Your task to perform on an android device: Check the weather Image 0: 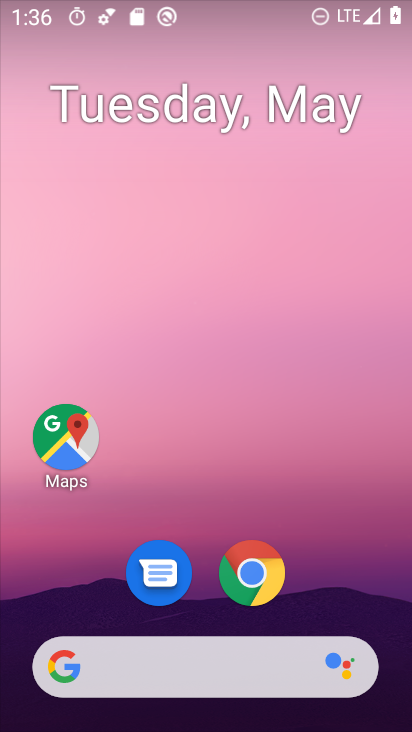
Step 0: drag from (373, 600) to (341, 353)
Your task to perform on an android device: Check the weather Image 1: 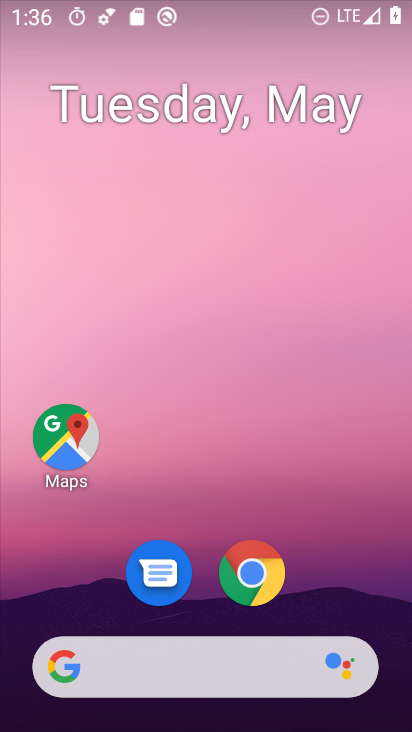
Step 1: click (64, 658)
Your task to perform on an android device: Check the weather Image 2: 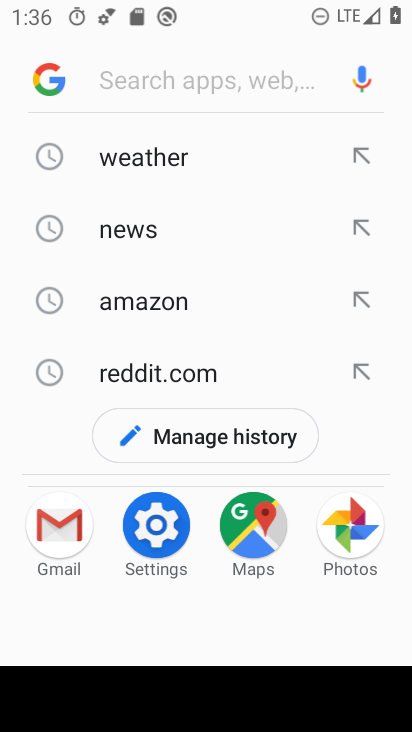
Step 2: click (45, 52)
Your task to perform on an android device: Check the weather Image 3: 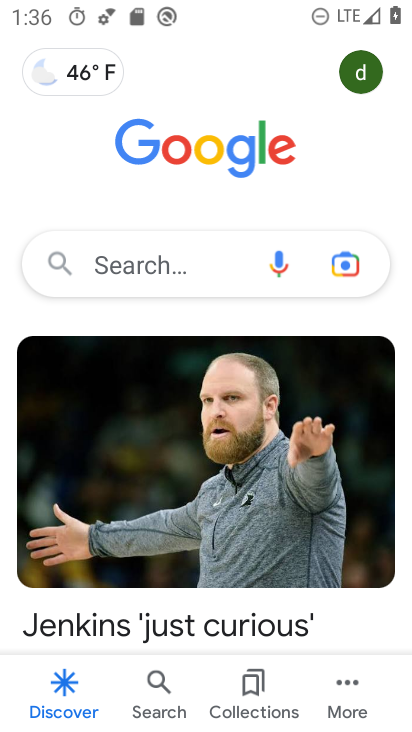
Step 3: drag from (255, 505) to (282, 220)
Your task to perform on an android device: Check the weather Image 4: 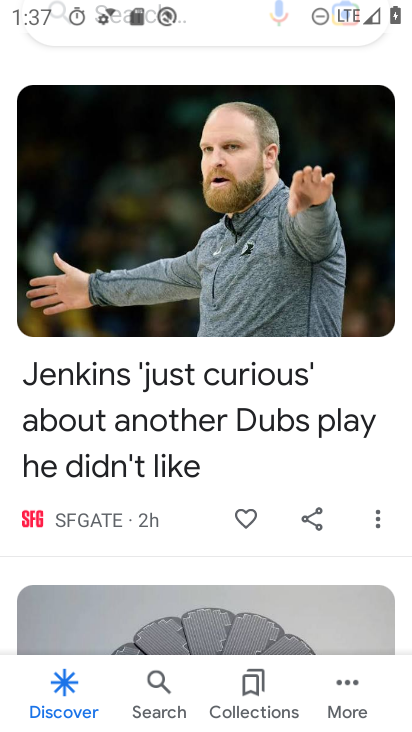
Step 4: drag from (328, 178) to (371, 494)
Your task to perform on an android device: Check the weather Image 5: 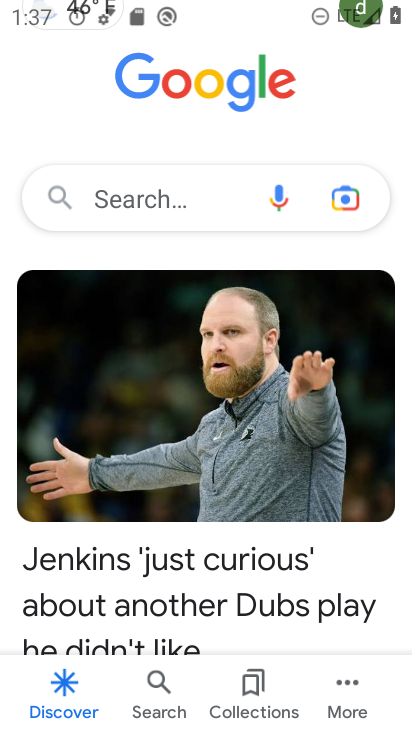
Step 5: drag from (174, 173) to (209, 474)
Your task to perform on an android device: Check the weather Image 6: 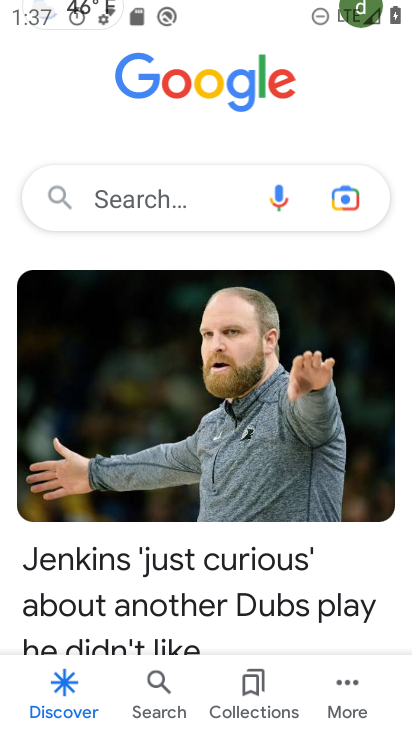
Step 6: drag from (376, 133) to (400, 500)
Your task to perform on an android device: Check the weather Image 7: 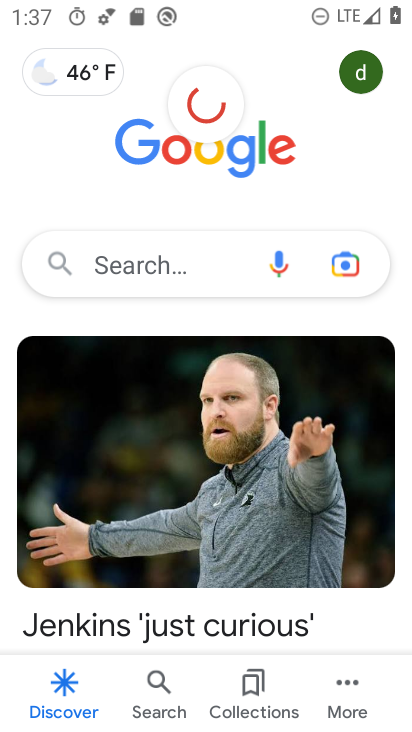
Step 7: click (70, 75)
Your task to perform on an android device: Check the weather Image 8: 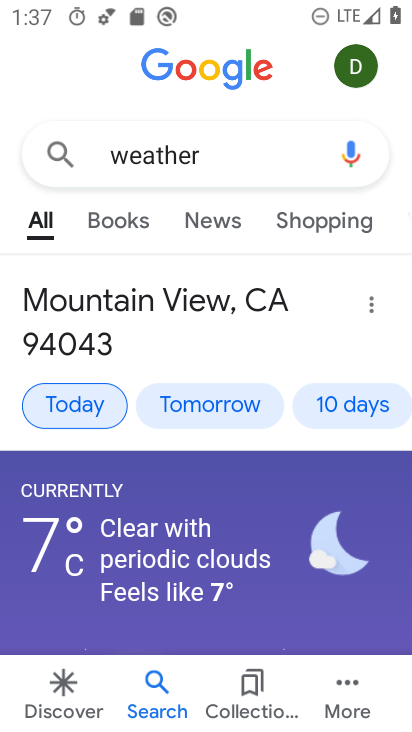
Step 8: task complete